Your task to perform on an android device: Open my contact list Image 0: 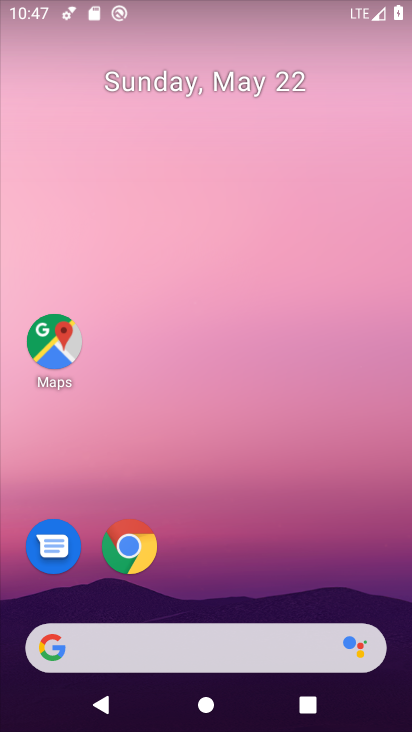
Step 0: drag from (233, 649) to (203, 44)
Your task to perform on an android device: Open my contact list Image 1: 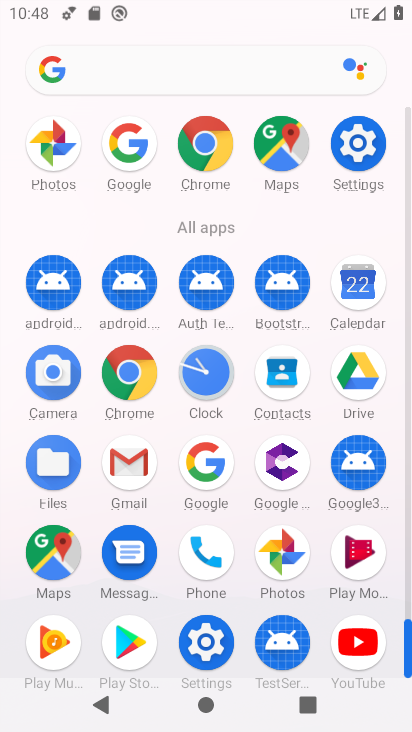
Step 1: drag from (303, 229) to (319, 107)
Your task to perform on an android device: Open my contact list Image 2: 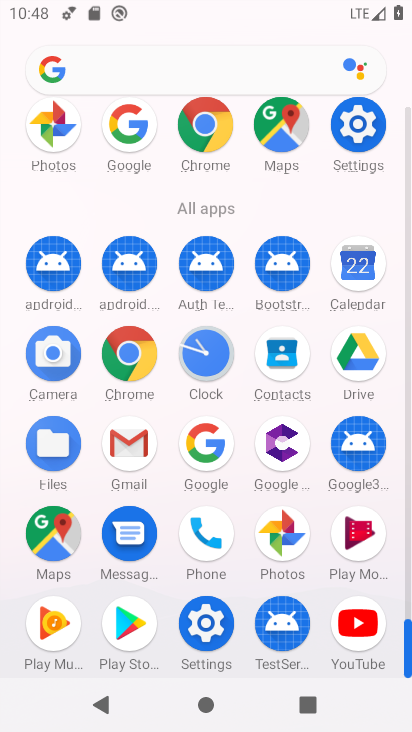
Step 2: click (283, 356)
Your task to perform on an android device: Open my contact list Image 3: 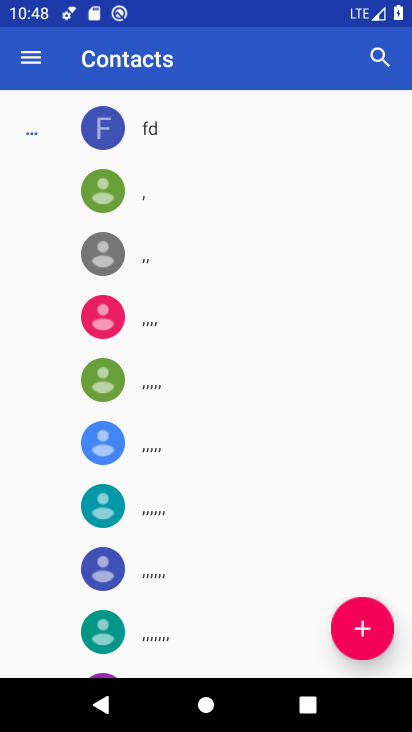
Step 3: drag from (222, 573) to (227, 171)
Your task to perform on an android device: Open my contact list Image 4: 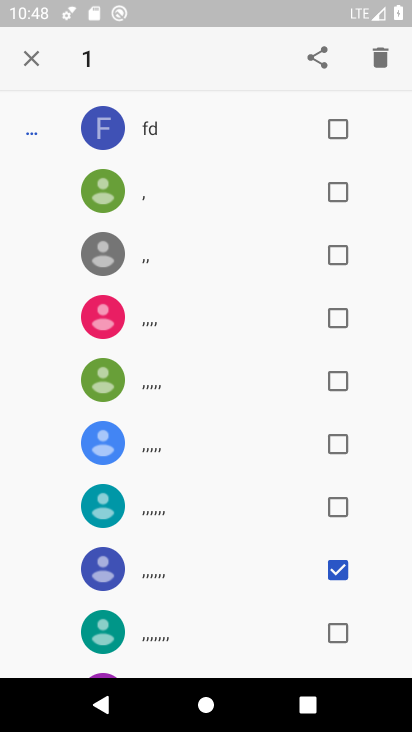
Step 4: click (34, 59)
Your task to perform on an android device: Open my contact list Image 5: 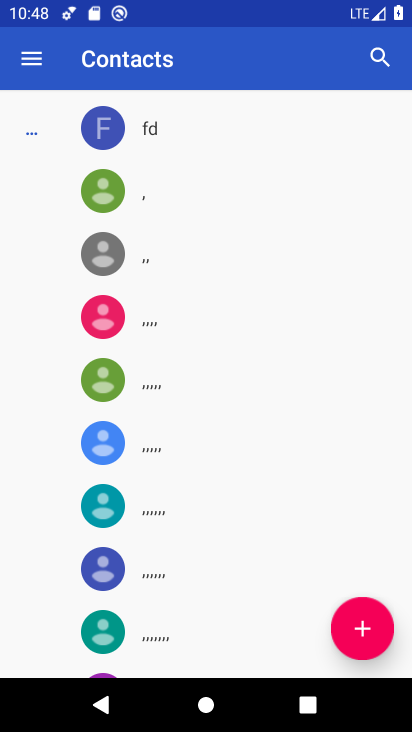
Step 5: task complete